Your task to perform on an android device: Search for seafood restaurants on Google Maps Image 0: 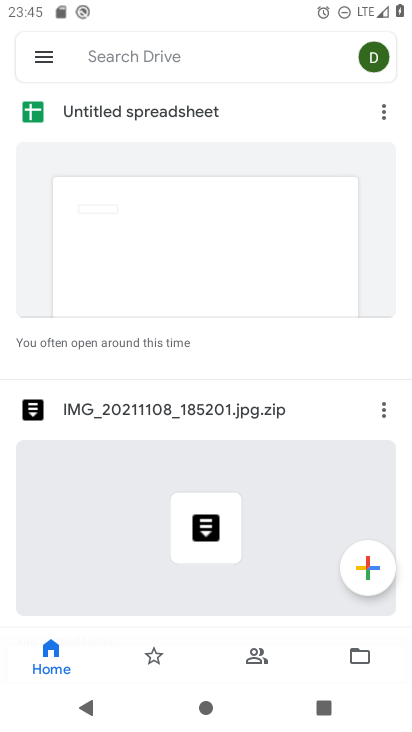
Step 0: press home button
Your task to perform on an android device: Search for seafood restaurants on Google Maps Image 1: 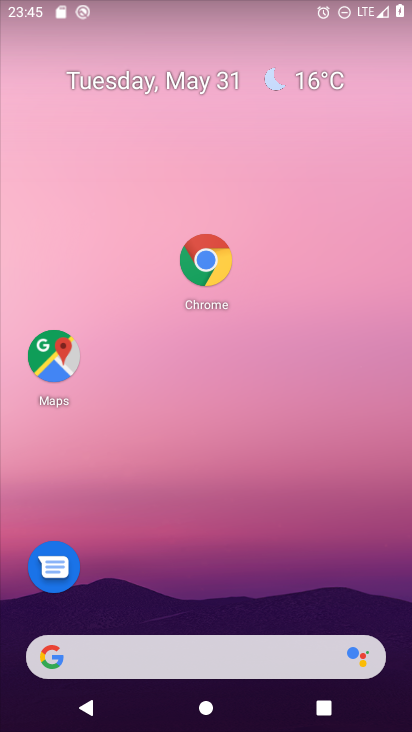
Step 1: drag from (218, 630) to (218, 275)
Your task to perform on an android device: Search for seafood restaurants on Google Maps Image 2: 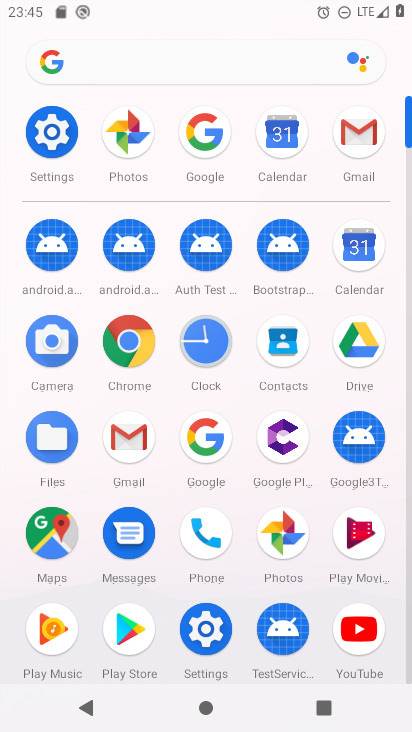
Step 2: click (52, 537)
Your task to perform on an android device: Search for seafood restaurants on Google Maps Image 3: 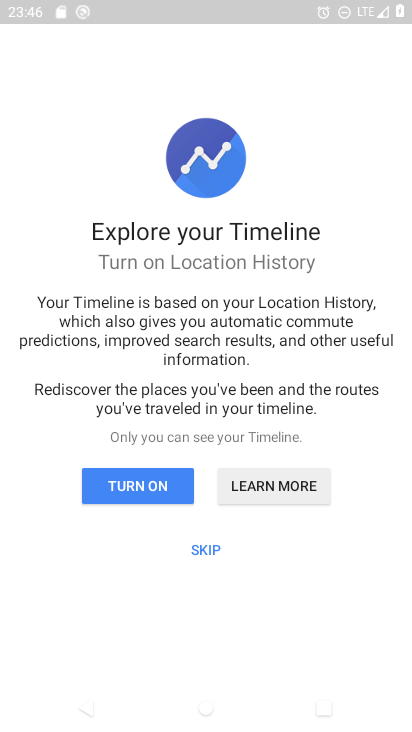
Step 3: click (203, 548)
Your task to perform on an android device: Search for seafood restaurants on Google Maps Image 4: 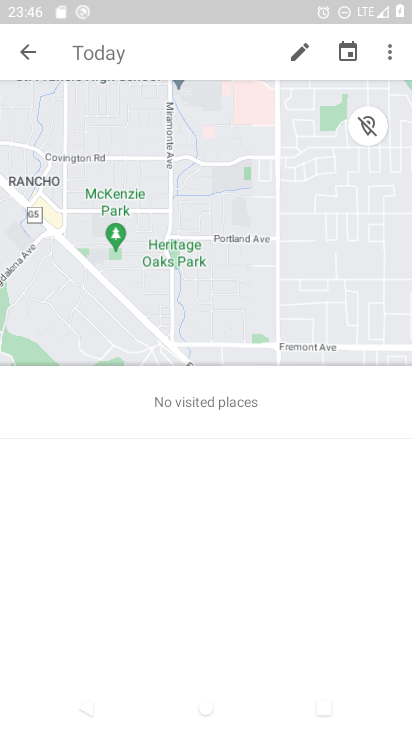
Step 4: click (206, 55)
Your task to perform on an android device: Search for seafood restaurants on Google Maps Image 5: 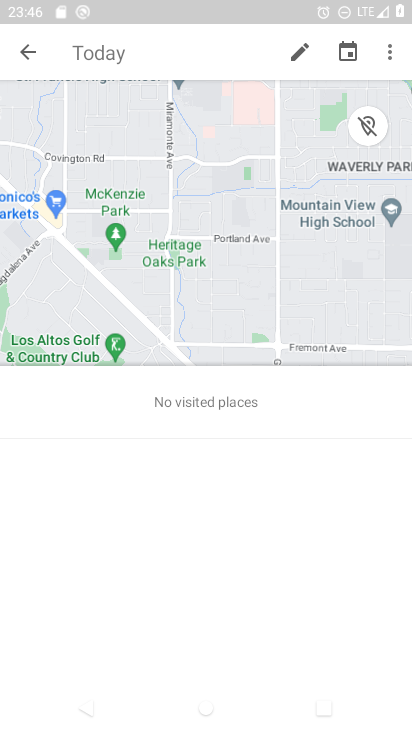
Step 5: click (19, 55)
Your task to perform on an android device: Search for seafood restaurants on Google Maps Image 6: 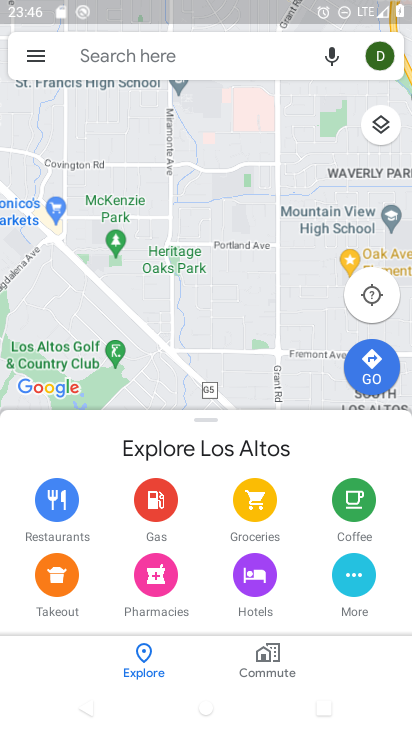
Step 6: click (136, 66)
Your task to perform on an android device: Search for seafood restaurants on Google Maps Image 7: 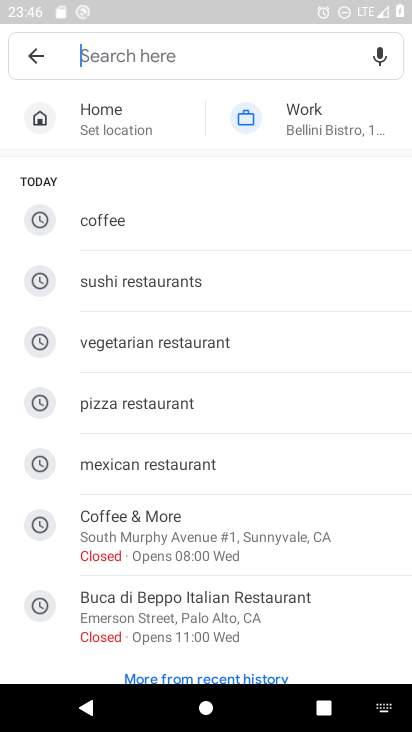
Step 7: drag from (127, 548) to (188, 156)
Your task to perform on an android device: Search for seafood restaurants on Google Maps Image 8: 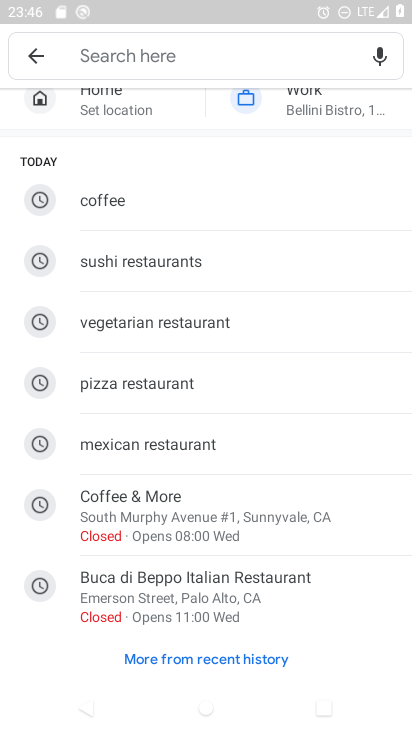
Step 8: click (202, 662)
Your task to perform on an android device: Search for seafood restaurants on Google Maps Image 9: 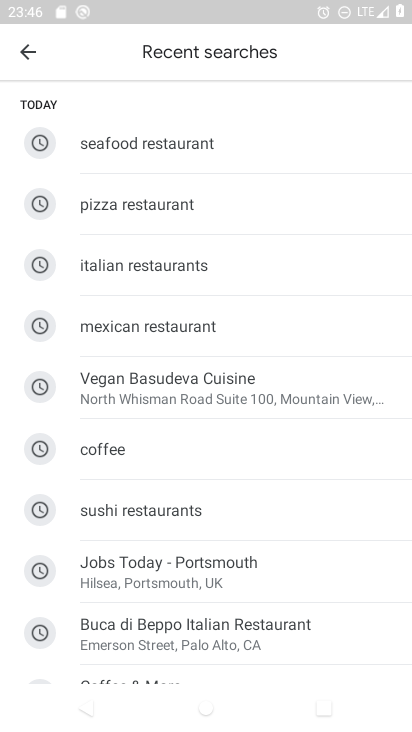
Step 9: drag from (125, 614) to (179, 172)
Your task to perform on an android device: Search for seafood restaurants on Google Maps Image 10: 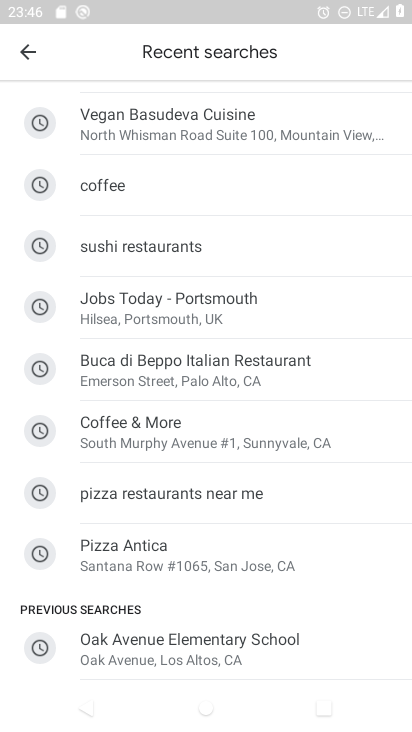
Step 10: drag from (143, 630) to (166, 291)
Your task to perform on an android device: Search for seafood restaurants on Google Maps Image 11: 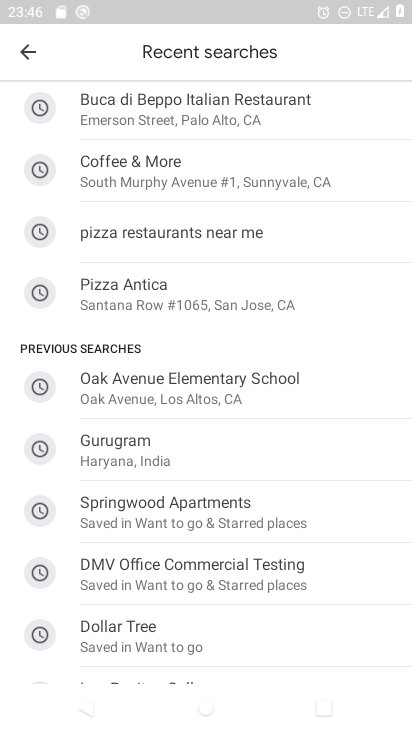
Step 11: drag from (142, 625) to (181, 297)
Your task to perform on an android device: Search for seafood restaurants on Google Maps Image 12: 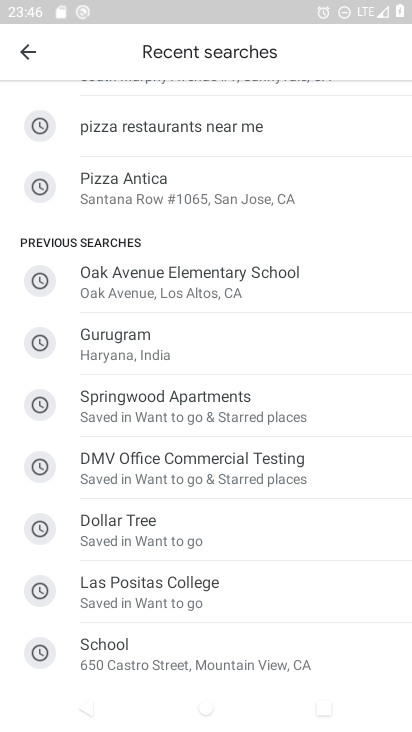
Step 12: type "seafood restaurants"
Your task to perform on an android device: Search for seafood restaurants on Google Maps Image 13: 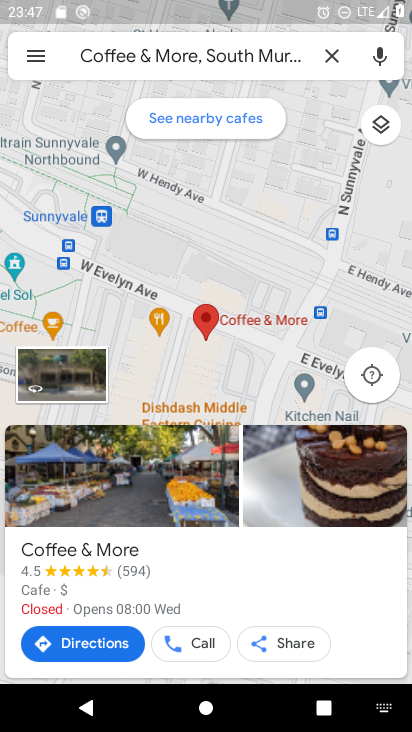
Step 13: task complete